Your task to perform on an android device: Open calendar and show me the fourth week of next month Image 0: 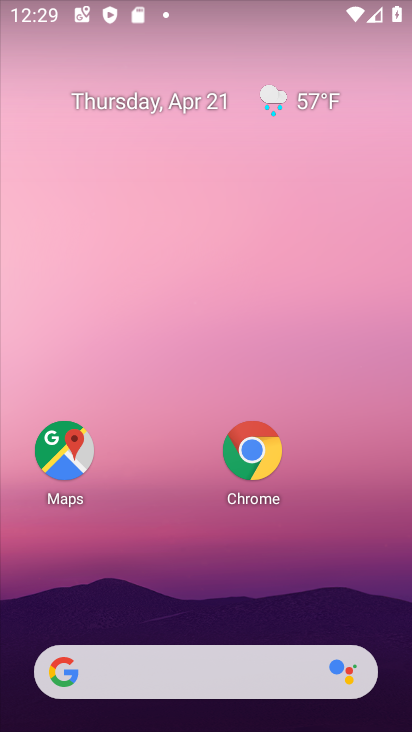
Step 0: click (191, 98)
Your task to perform on an android device: Open calendar and show me the fourth week of next month Image 1: 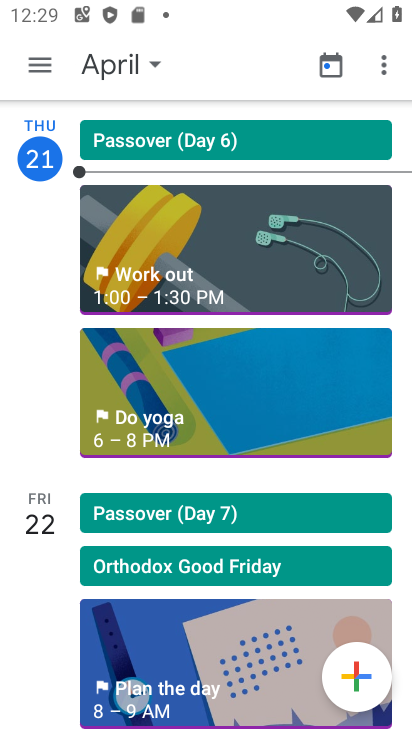
Step 1: click (113, 61)
Your task to perform on an android device: Open calendar and show me the fourth week of next month Image 2: 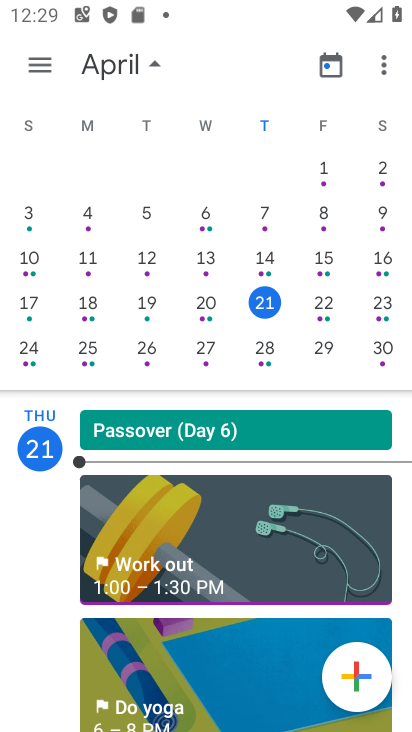
Step 2: drag from (389, 278) to (6, 299)
Your task to perform on an android device: Open calendar and show me the fourth week of next month Image 3: 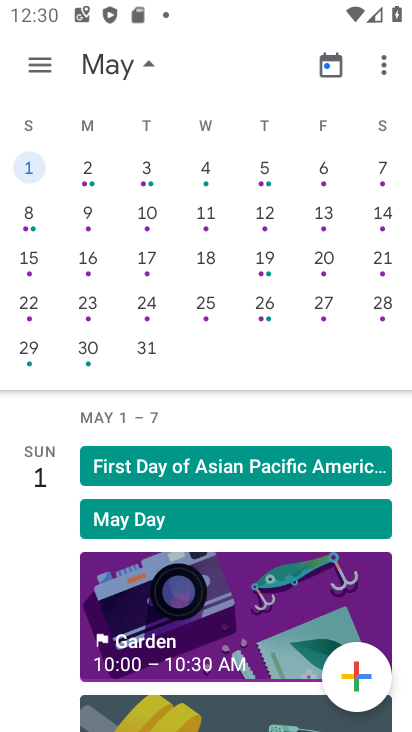
Step 3: click (151, 308)
Your task to perform on an android device: Open calendar and show me the fourth week of next month Image 4: 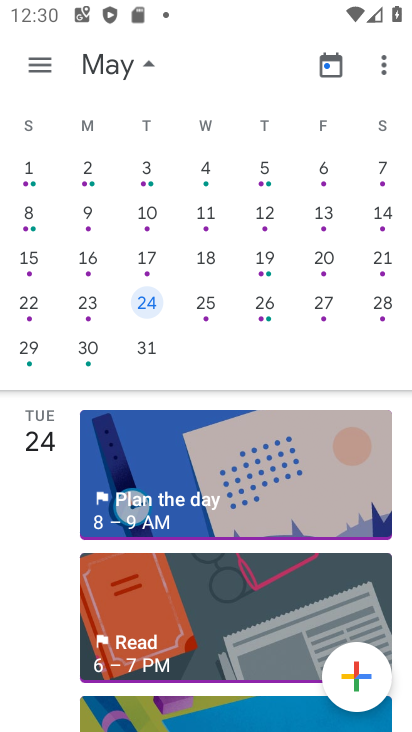
Step 4: task complete